Your task to perform on an android device: Open Google Image 0: 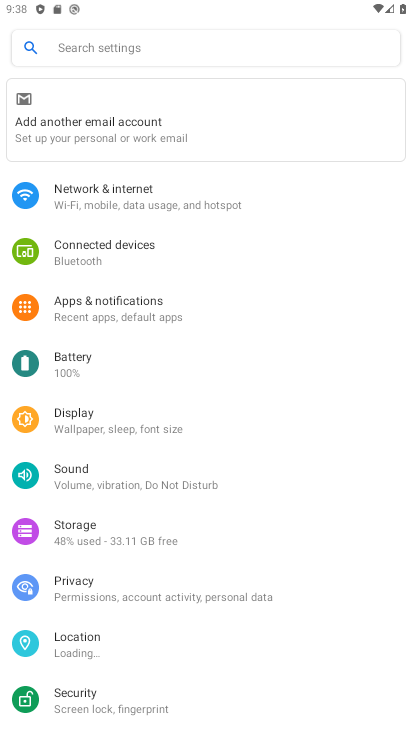
Step 0: press back button
Your task to perform on an android device: Open Google Image 1: 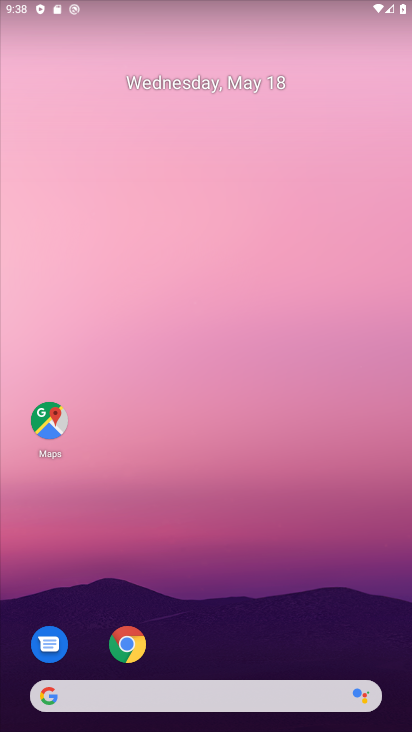
Step 1: drag from (253, 569) to (201, 107)
Your task to perform on an android device: Open Google Image 2: 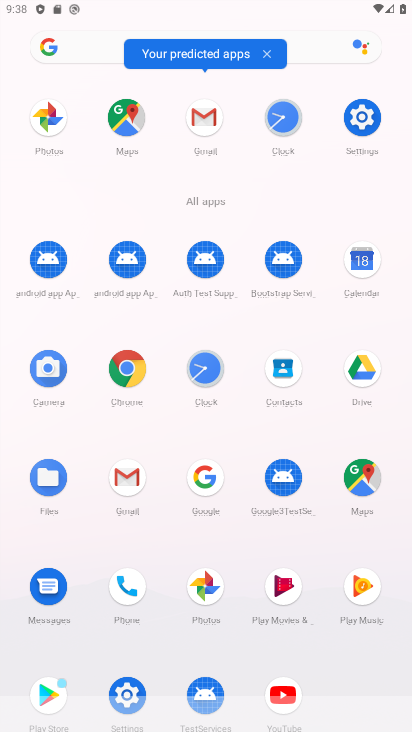
Step 2: click (204, 474)
Your task to perform on an android device: Open Google Image 3: 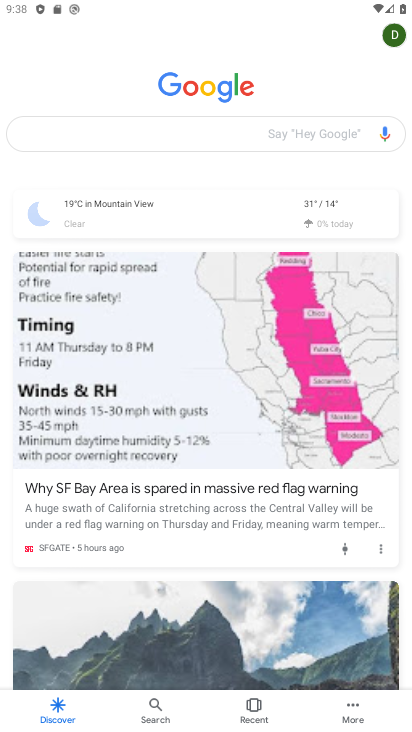
Step 3: task complete